Your task to perform on an android device: turn off location history Image 0: 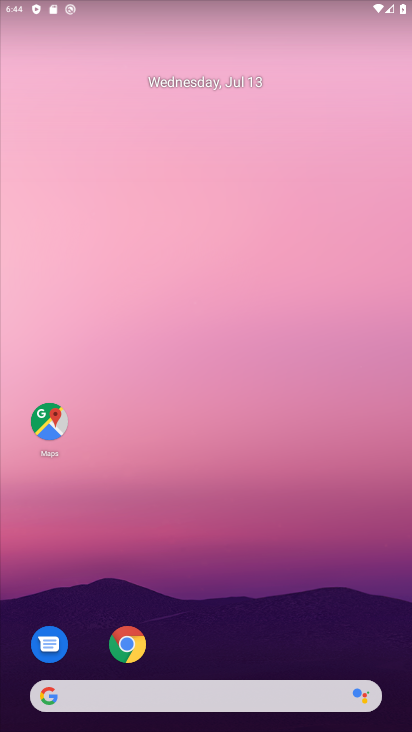
Step 0: click (47, 421)
Your task to perform on an android device: turn off location history Image 1: 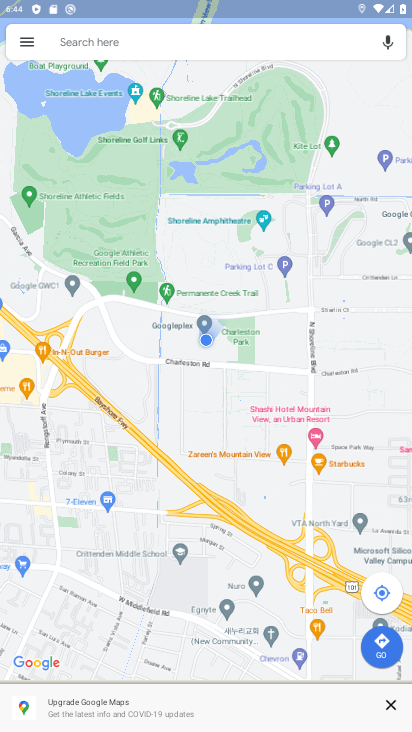
Step 1: click (24, 43)
Your task to perform on an android device: turn off location history Image 2: 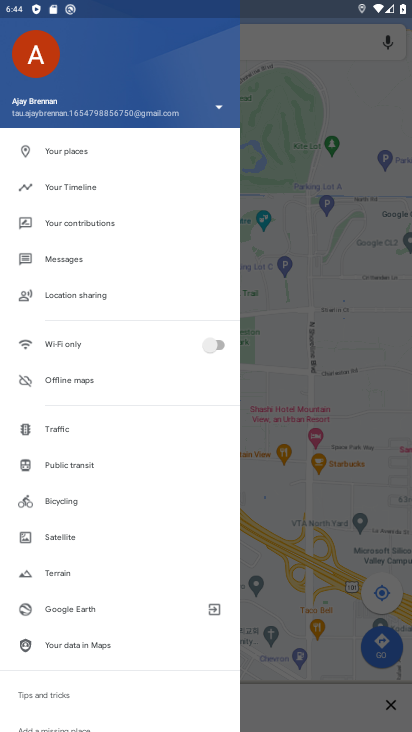
Step 2: click (68, 185)
Your task to perform on an android device: turn off location history Image 3: 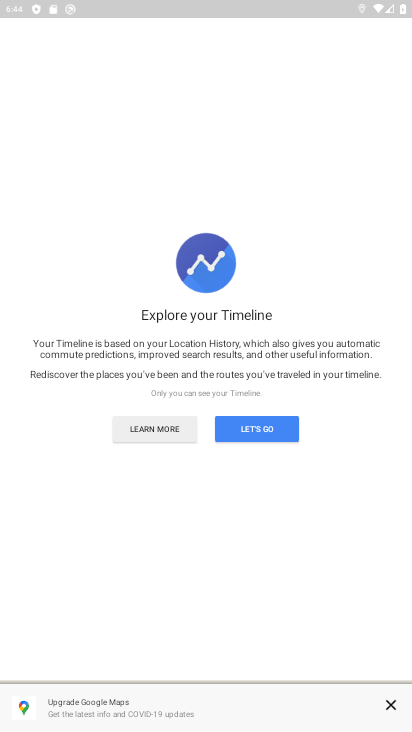
Step 3: click (246, 429)
Your task to perform on an android device: turn off location history Image 4: 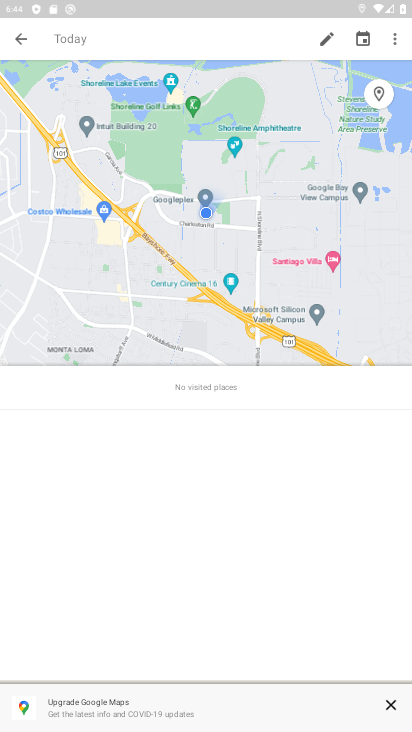
Step 4: click (393, 42)
Your task to perform on an android device: turn off location history Image 5: 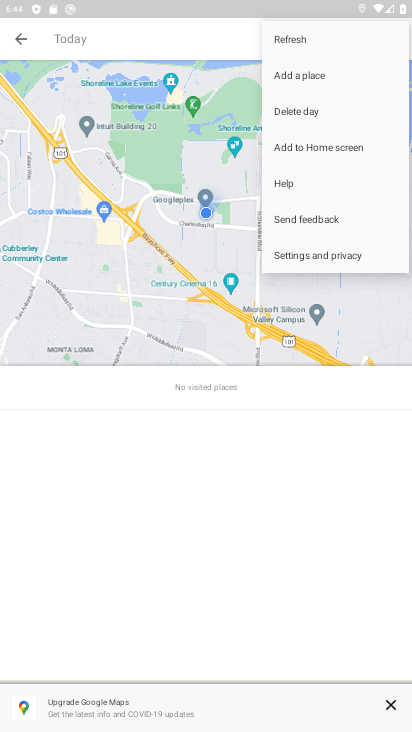
Step 5: click (333, 254)
Your task to perform on an android device: turn off location history Image 6: 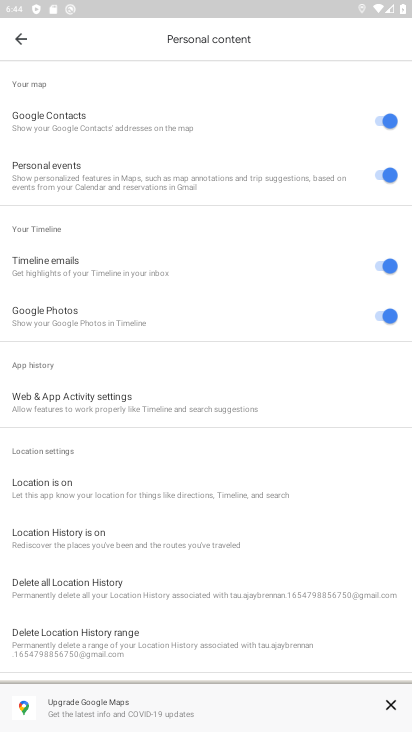
Step 6: click (60, 527)
Your task to perform on an android device: turn off location history Image 7: 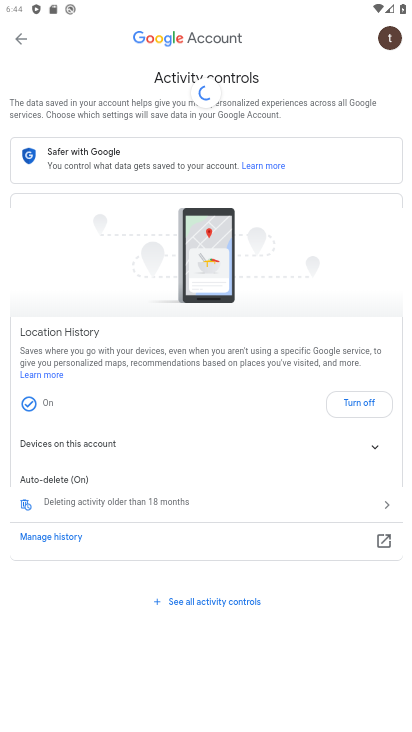
Step 7: click (370, 401)
Your task to perform on an android device: turn off location history Image 8: 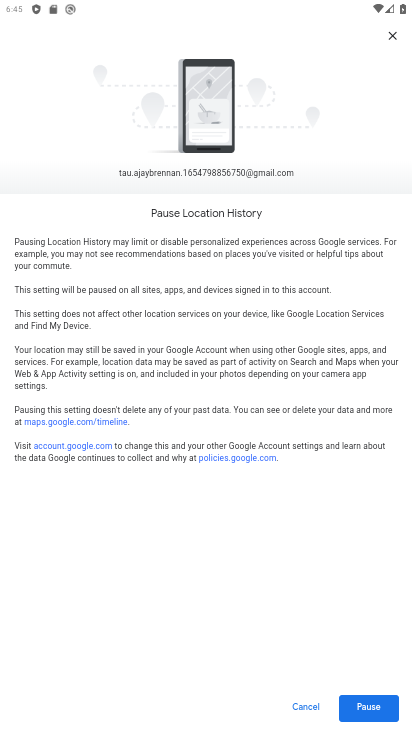
Step 8: drag from (373, 626) to (288, 214)
Your task to perform on an android device: turn off location history Image 9: 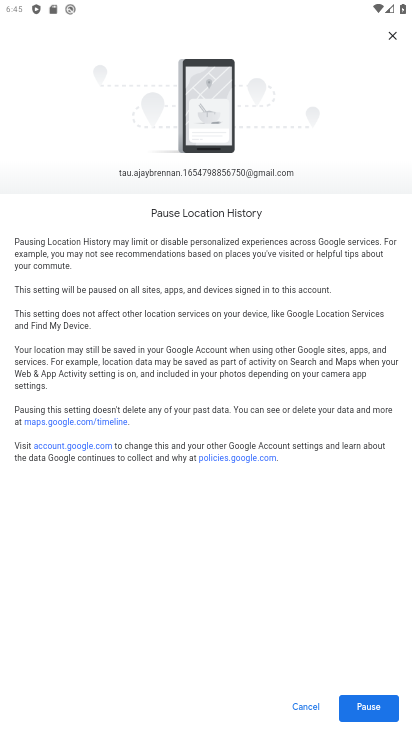
Step 9: click (355, 701)
Your task to perform on an android device: turn off location history Image 10: 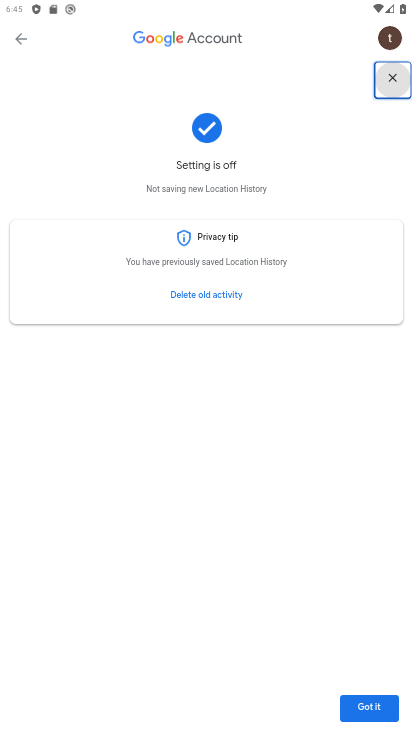
Step 10: click (366, 713)
Your task to perform on an android device: turn off location history Image 11: 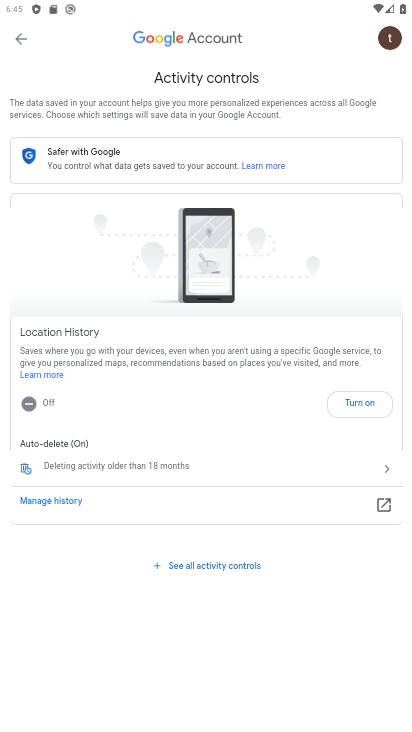
Step 11: task complete